Your task to perform on an android device: open chrome privacy settings Image 0: 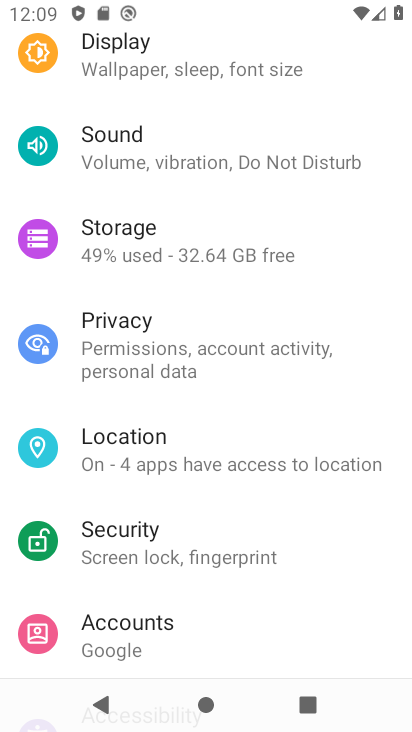
Step 0: press home button
Your task to perform on an android device: open chrome privacy settings Image 1: 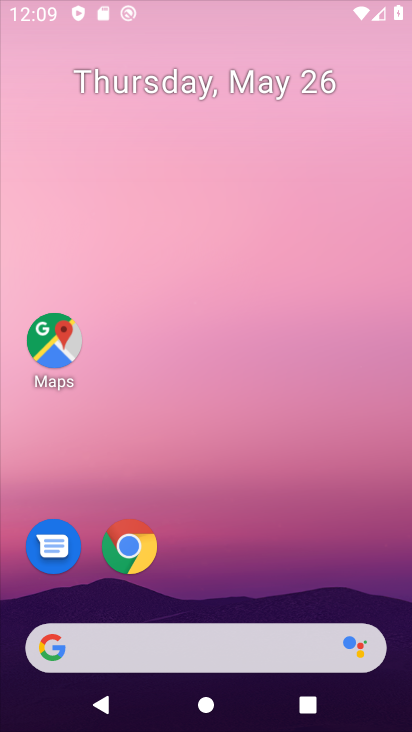
Step 1: drag from (404, 632) to (206, 32)
Your task to perform on an android device: open chrome privacy settings Image 2: 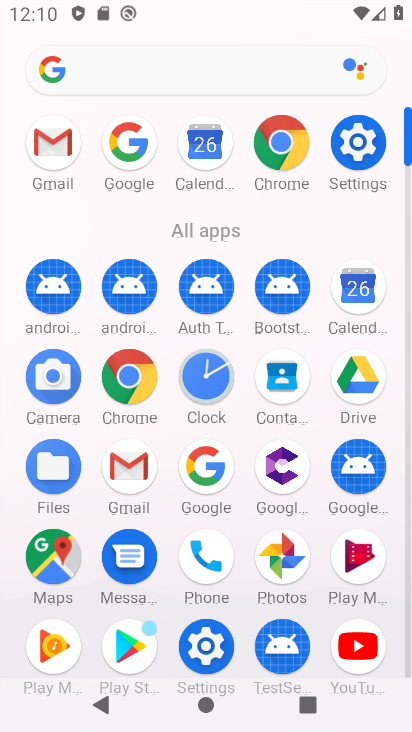
Step 2: click (134, 361)
Your task to perform on an android device: open chrome privacy settings Image 3: 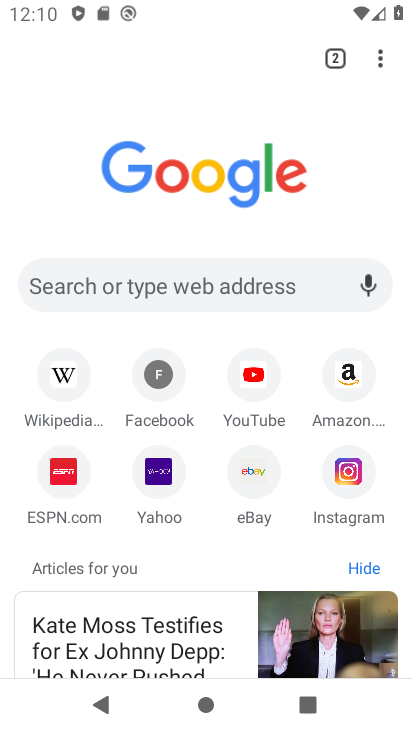
Step 3: click (384, 52)
Your task to perform on an android device: open chrome privacy settings Image 4: 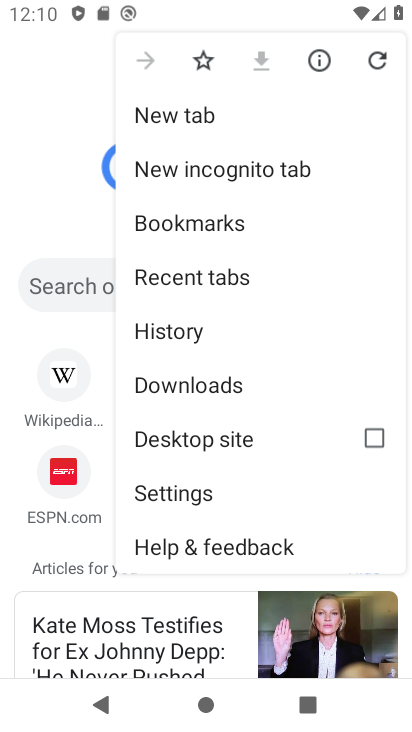
Step 4: click (213, 492)
Your task to perform on an android device: open chrome privacy settings Image 5: 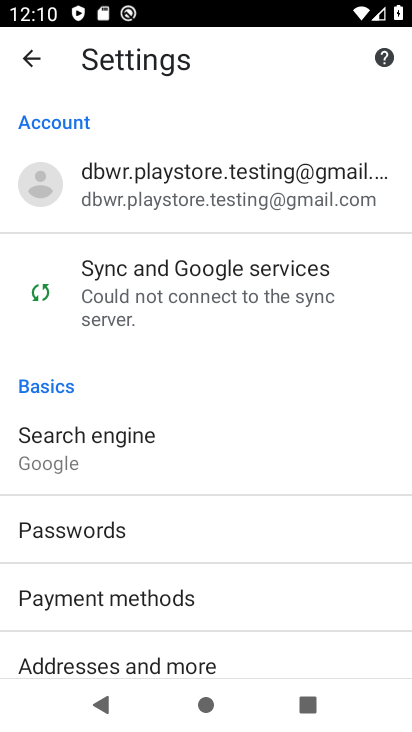
Step 5: drag from (158, 669) to (251, 239)
Your task to perform on an android device: open chrome privacy settings Image 6: 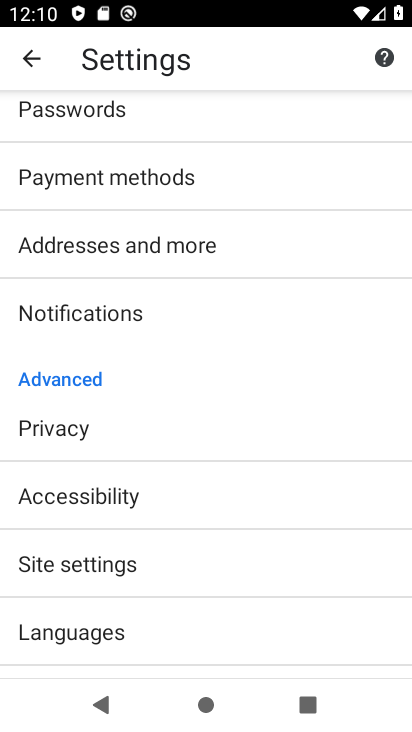
Step 6: click (106, 441)
Your task to perform on an android device: open chrome privacy settings Image 7: 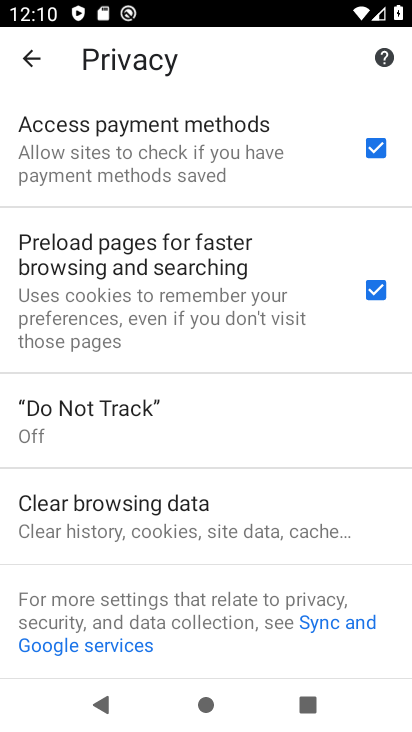
Step 7: task complete